Your task to perform on an android device: Open display settings Image 0: 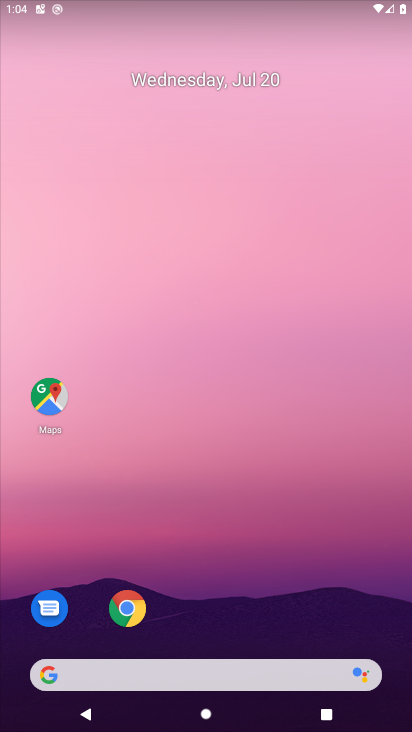
Step 0: drag from (218, 642) to (212, 197)
Your task to perform on an android device: Open display settings Image 1: 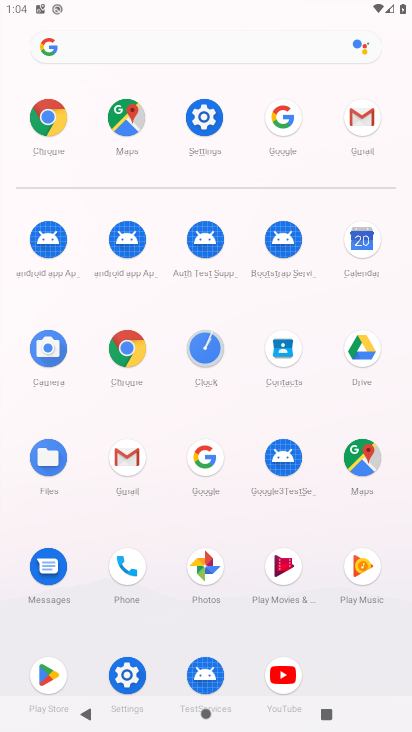
Step 1: click (198, 124)
Your task to perform on an android device: Open display settings Image 2: 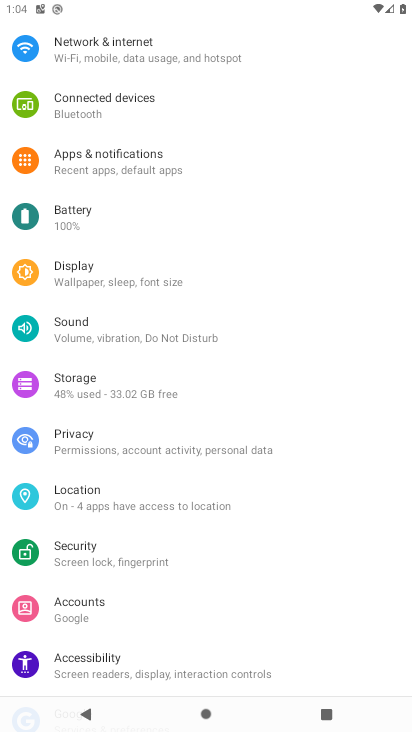
Step 2: click (73, 278)
Your task to perform on an android device: Open display settings Image 3: 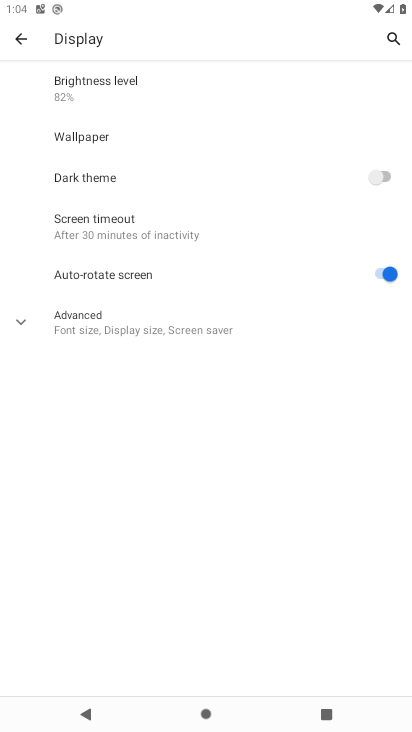
Step 3: click (106, 333)
Your task to perform on an android device: Open display settings Image 4: 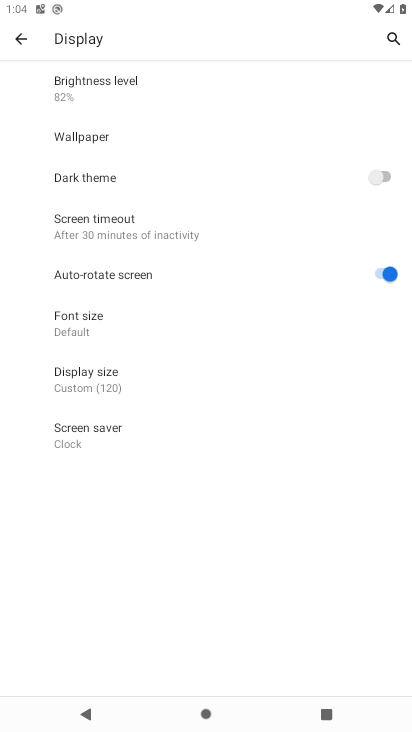
Step 4: task complete